Your task to perform on an android device: Open calendar and show me the fourth week of next month Image 0: 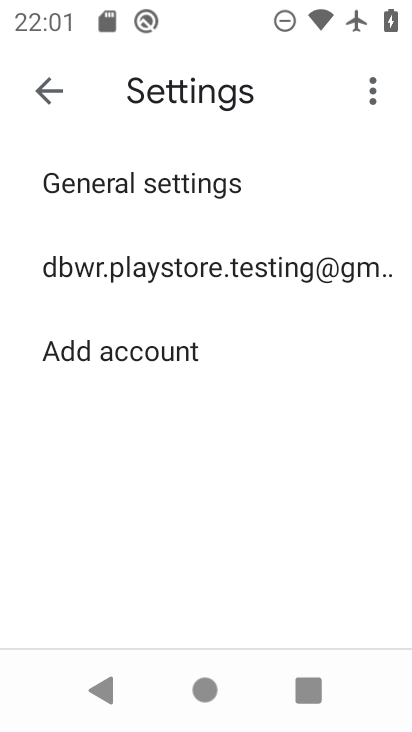
Step 0: drag from (208, 528) to (196, 127)
Your task to perform on an android device: Open calendar and show me the fourth week of next month Image 1: 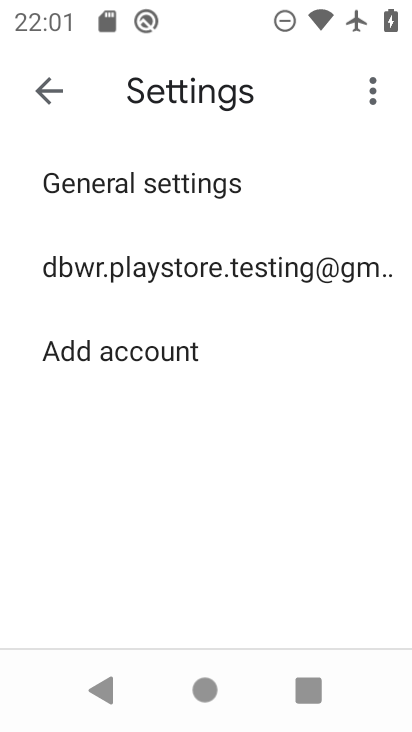
Step 1: press home button
Your task to perform on an android device: Open calendar and show me the fourth week of next month Image 2: 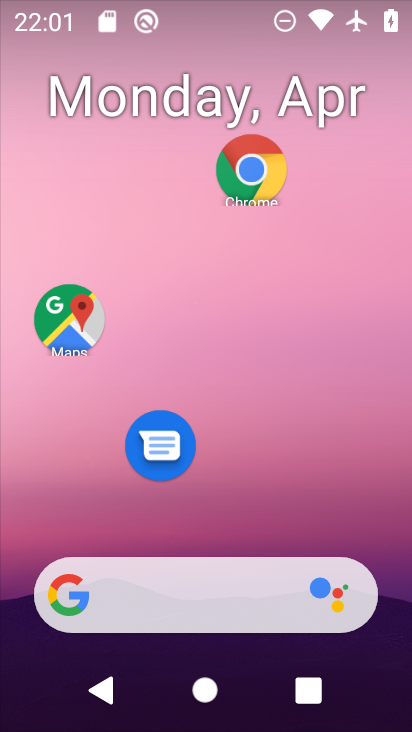
Step 2: drag from (254, 527) to (245, 181)
Your task to perform on an android device: Open calendar and show me the fourth week of next month Image 3: 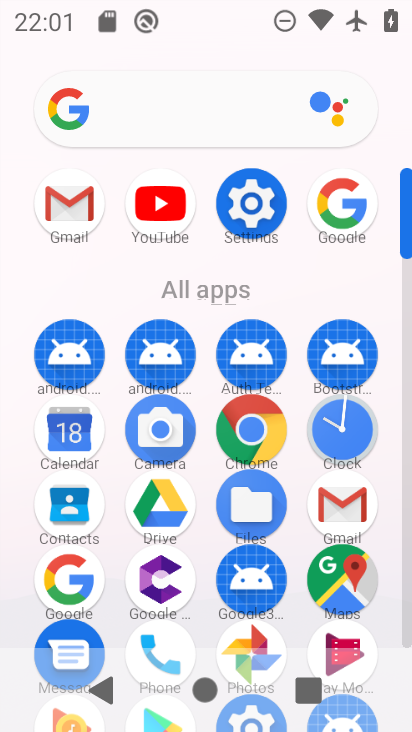
Step 3: click (68, 452)
Your task to perform on an android device: Open calendar and show me the fourth week of next month Image 4: 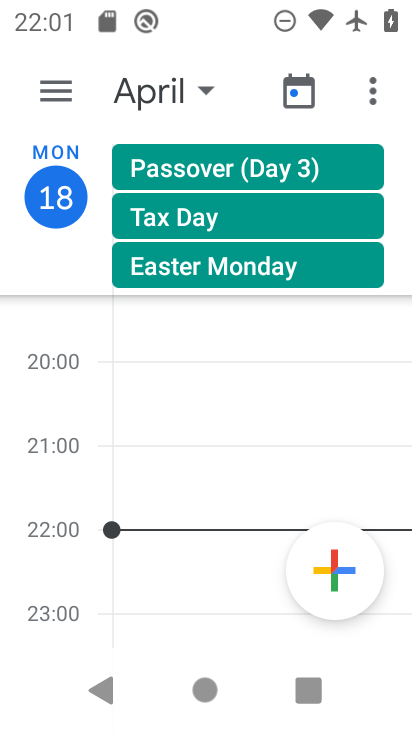
Step 4: click (168, 105)
Your task to perform on an android device: Open calendar and show me the fourth week of next month Image 5: 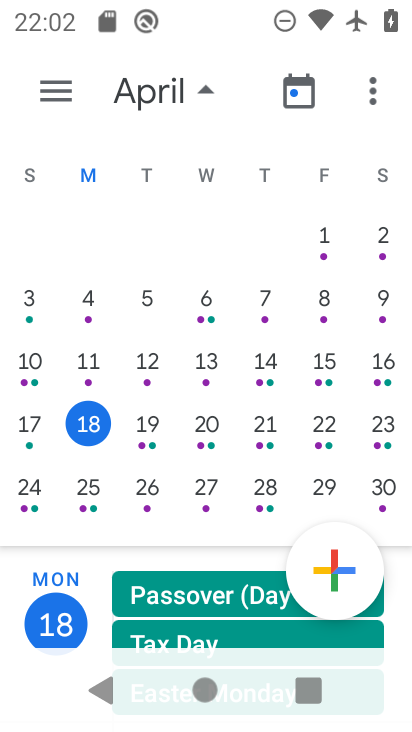
Step 5: drag from (341, 347) to (36, 316)
Your task to perform on an android device: Open calendar and show me the fourth week of next month Image 6: 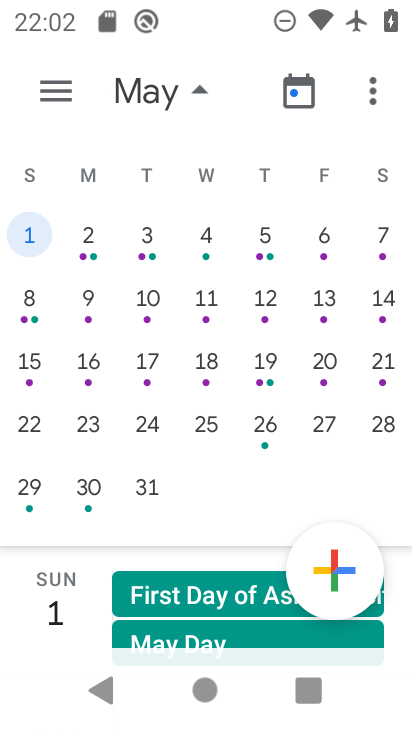
Step 6: click (88, 357)
Your task to perform on an android device: Open calendar and show me the fourth week of next month Image 7: 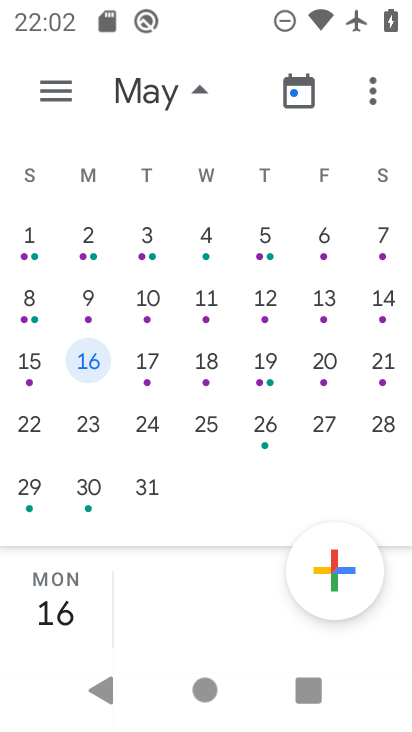
Step 7: task complete